Your task to perform on an android device: turn off sleep mode Image 0: 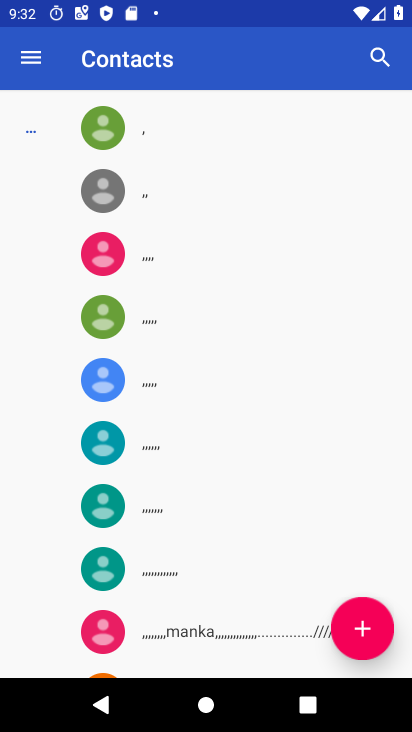
Step 0: press back button
Your task to perform on an android device: turn off sleep mode Image 1: 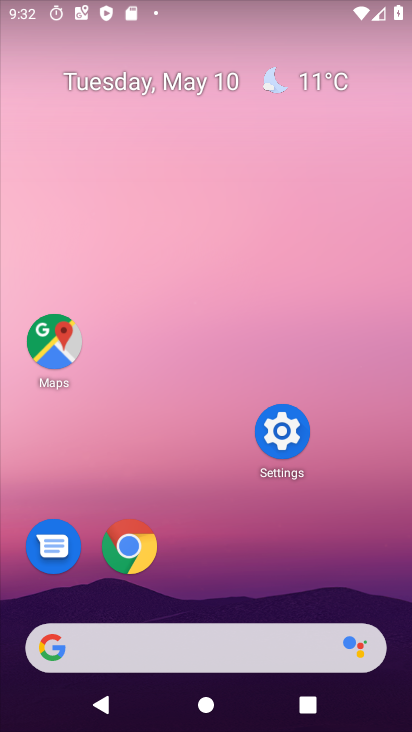
Step 1: click (293, 419)
Your task to perform on an android device: turn off sleep mode Image 2: 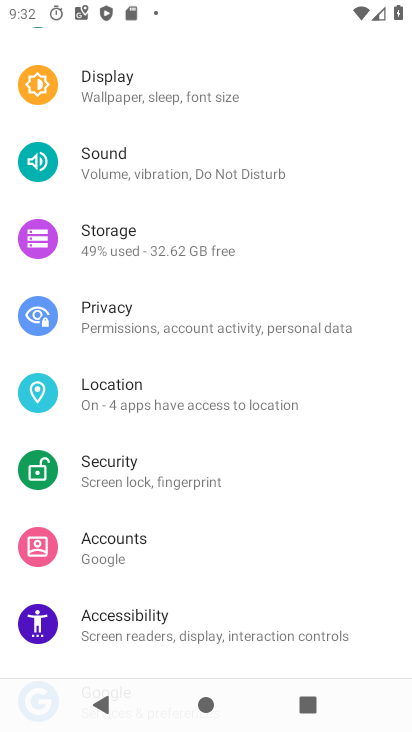
Step 2: drag from (217, 169) to (227, 590)
Your task to perform on an android device: turn off sleep mode Image 3: 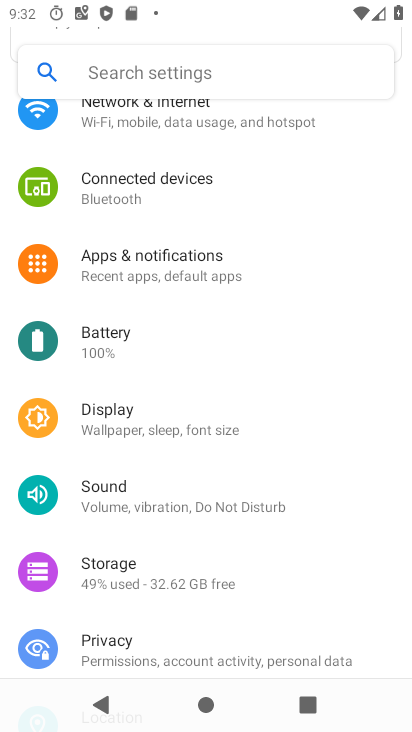
Step 3: click (107, 68)
Your task to perform on an android device: turn off sleep mode Image 4: 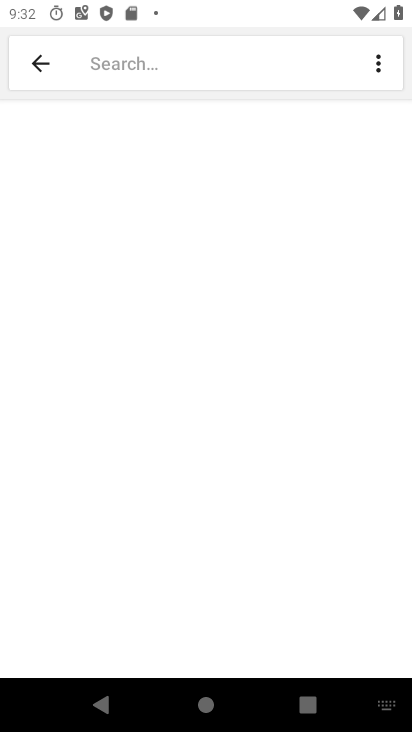
Step 4: type "sleep mode"
Your task to perform on an android device: turn off sleep mode Image 5: 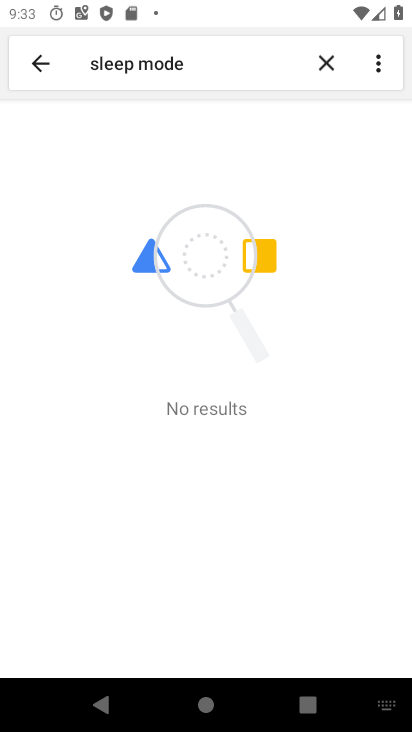
Step 5: task complete